Your task to perform on an android device: turn off javascript in the chrome app Image 0: 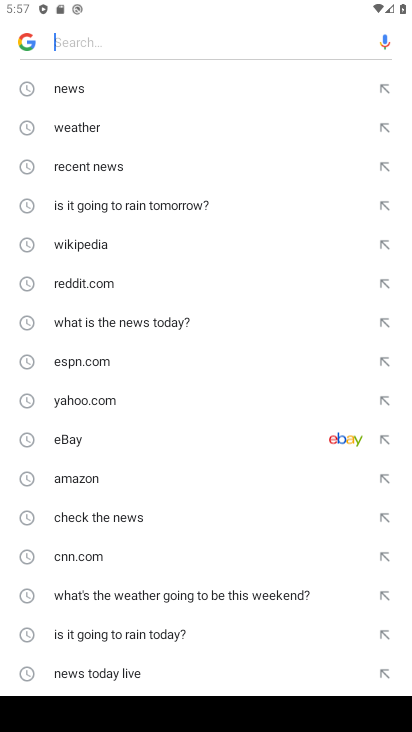
Step 0: press home button
Your task to perform on an android device: turn off javascript in the chrome app Image 1: 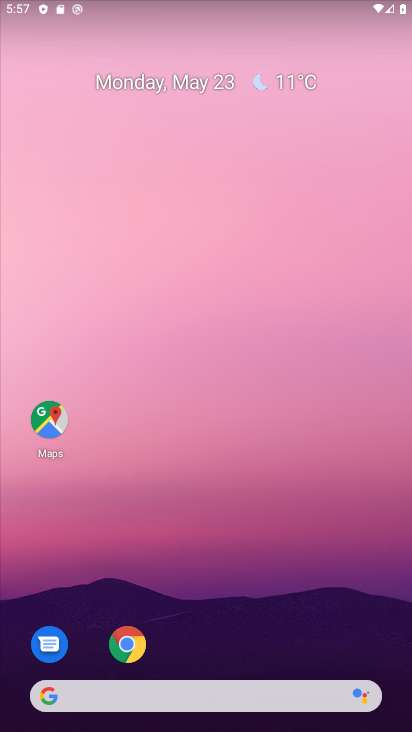
Step 1: click (127, 646)
Your task to perform on an android device: turn off javascript in the chrome app Image 2: 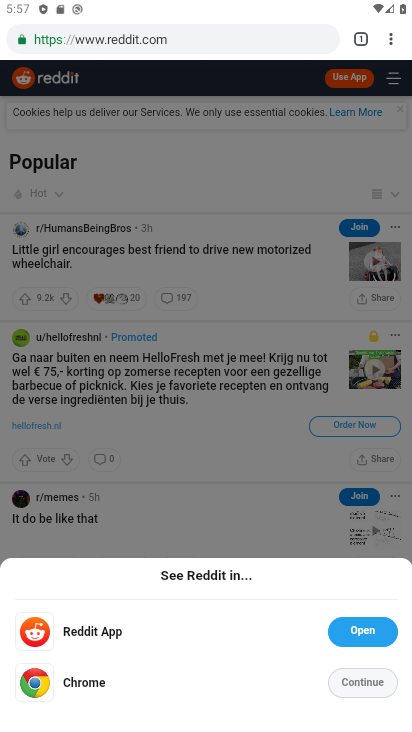
Step 2: click (386, 34)
Your task to perform on an android device: turn off javascript in the chrome app Image 3: 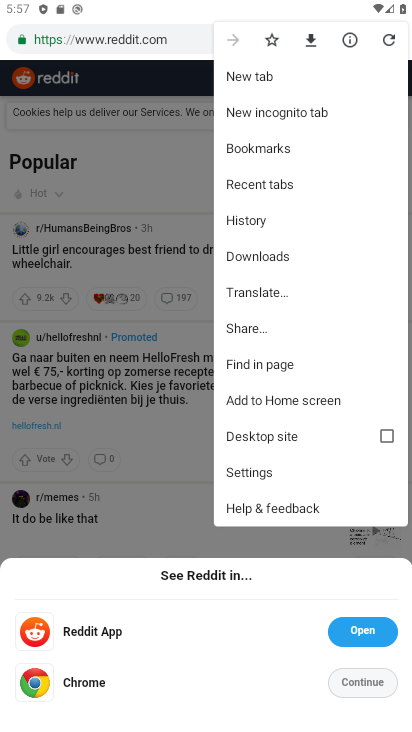
Step 3: click (255, 473)
Your task to perform on an android device: turn off javascript in the chrome app Image 4: 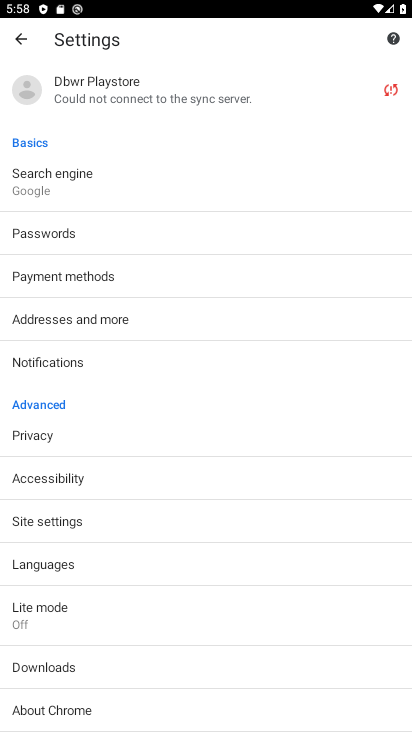
Step 4: click (54, 527)
Your task to perform on an android device: turn off javascript in the chrome app Image 5: 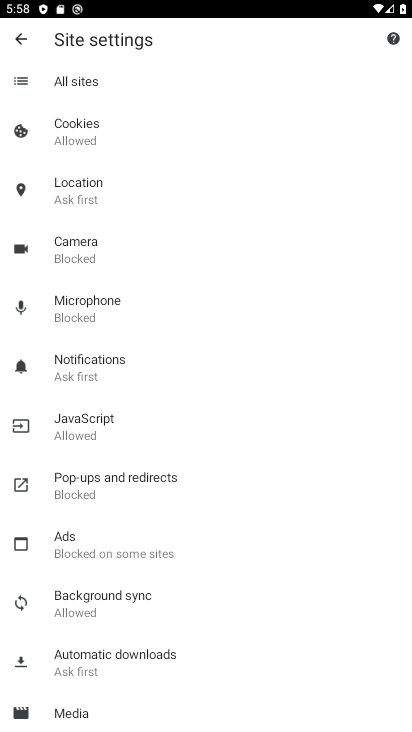
Step 5: click (71, 439)
Your task to perform on an android device: turn off javascript in the chrome app Image 6: 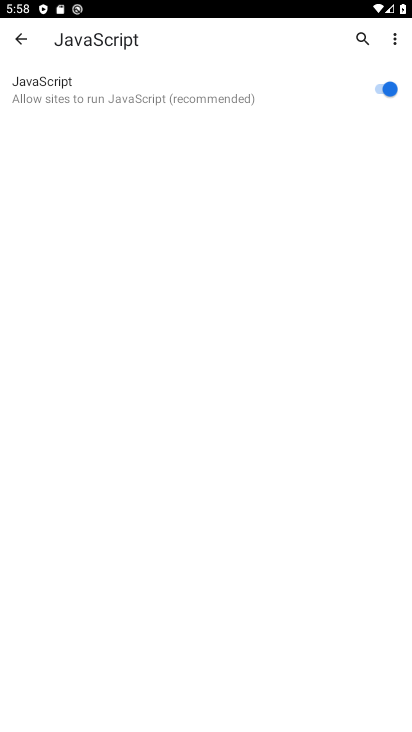
Step 6: click (372, 82)
Your task to perform on an android device: turn off javascript in the chrome app Image 7: 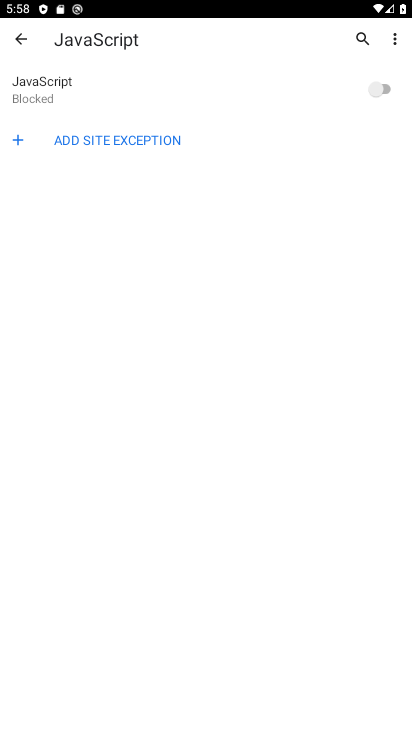
Step 7: task complete